Your task to perform on an android device: See recent photos Image 0: 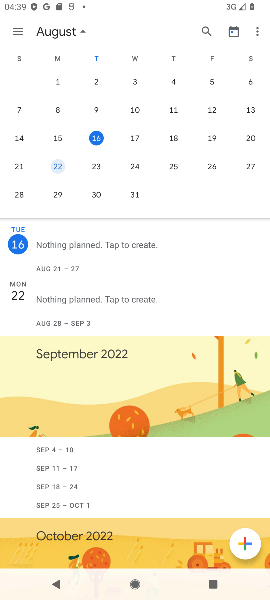
Step 0: press home button
Your task to perform on an android device: See recent photos Image 1: 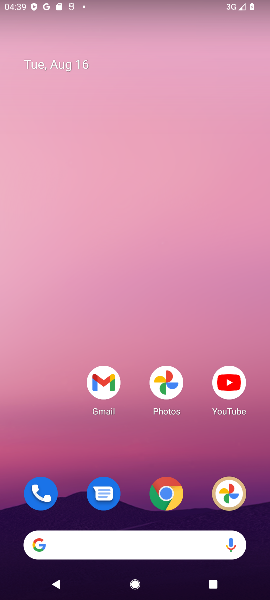
Step 1: drag from (61, 445) to (49, 209)
Your task to perform on an android device: See recent photos Image 2: 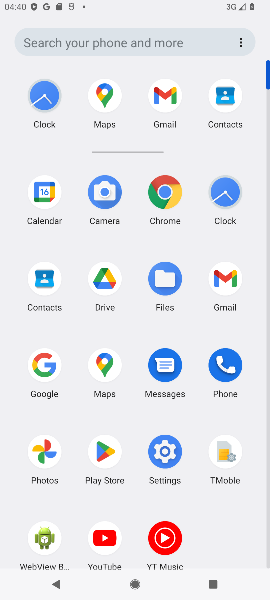
Step 2: click (45, 452)
Your task to perform on an android device: See recent photos Image 3: 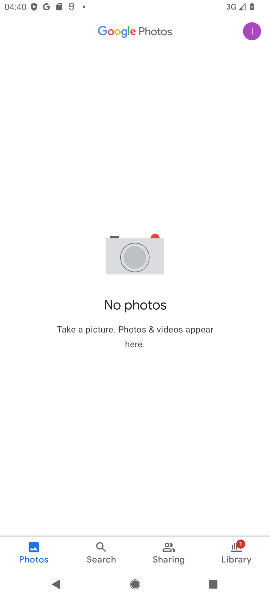
Step 3: task complete